Your task to perform on an android device: change the upload size in google photos Image 0: 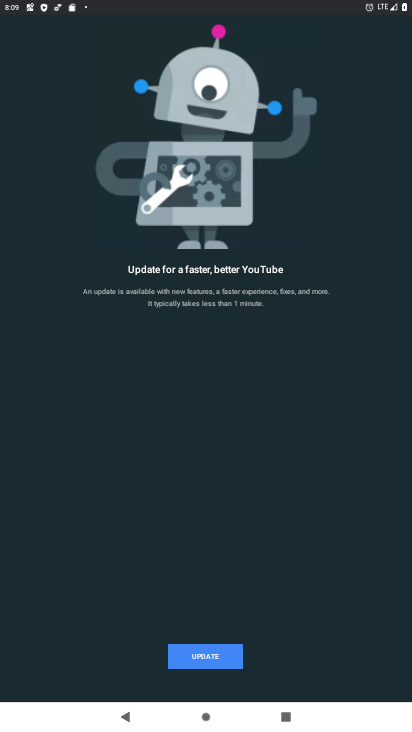
Step 0: press back button
Your task to perform on an android device: change the upload size in google photos Image 1: 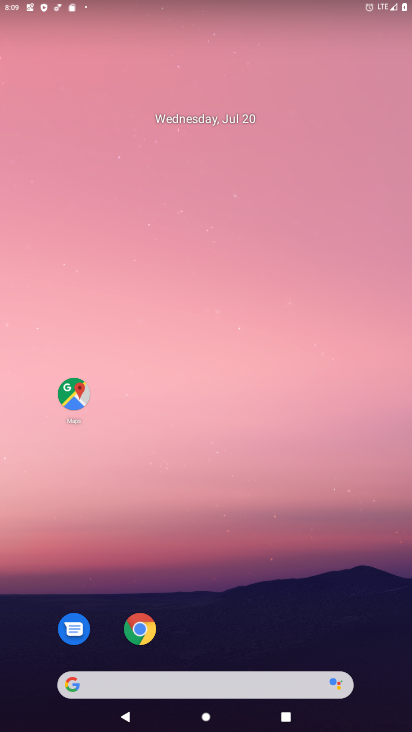
Step 1: drag from (230, 624) to (220, 285)
Your task to perform on an android device: change the upload size in google photos Image 2: 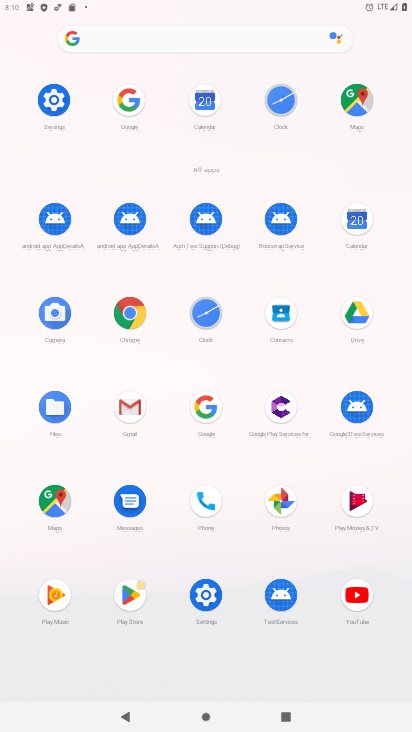
Step 2: click (280, 502)
Your task to perform on an android device: change the upload size in google photos Image 3: 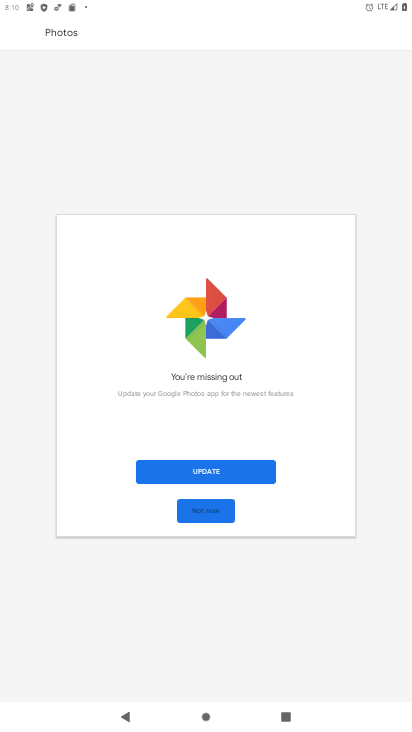
Step 3: click (204, 510)
Your task to perform on an android device: change the upload size in google photos Image 4: 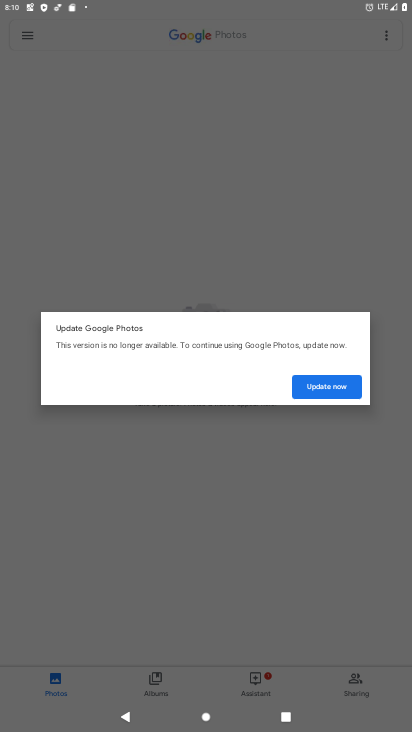
Step 4: click (327, 384)
Your task to perform on an android device: change the upload size in google photos Image 5: 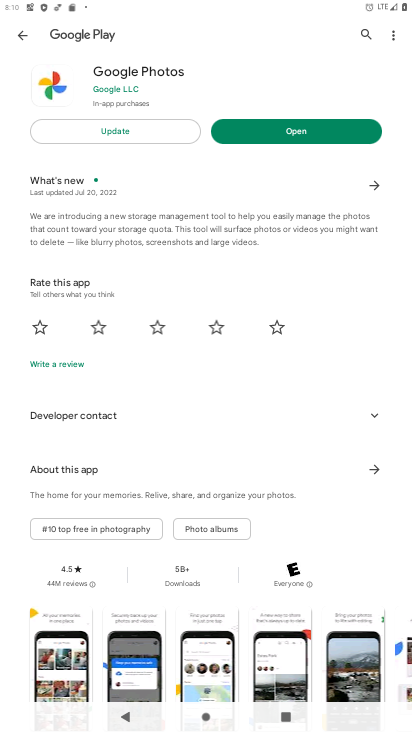
Step 5: click (111, 122)
Your task to perform on an android device: change the upload size in google photos Image 6: 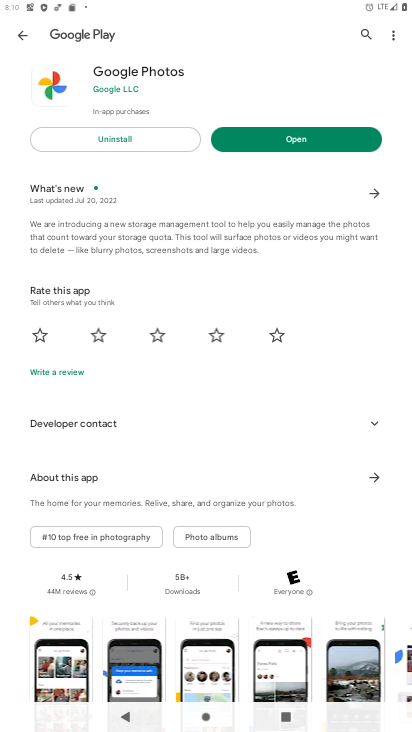
Step 6: click (298, 147)
Your task to perform on an android device: change the upload size in google photos Image 7: 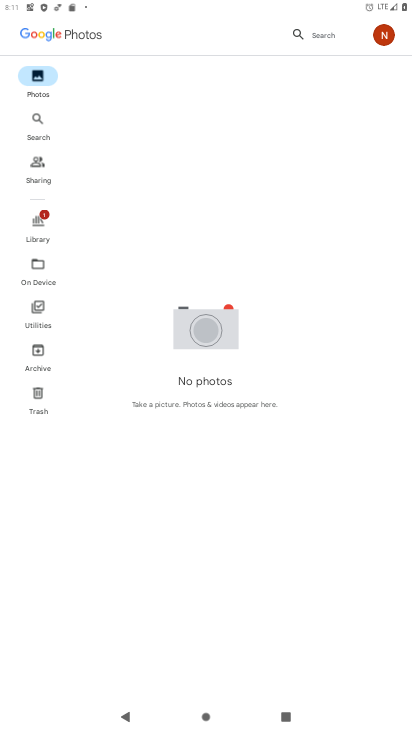
Step 7: click (387, 35)
Your task to perform on an android device: change the upload size in google photos Image 8: 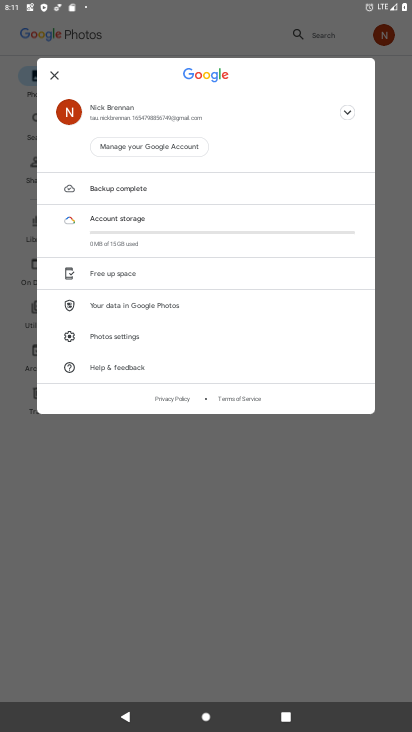
Step 8: click (110, 339)
Your task to perform on an android device: change the upload size in google photos Image 9: 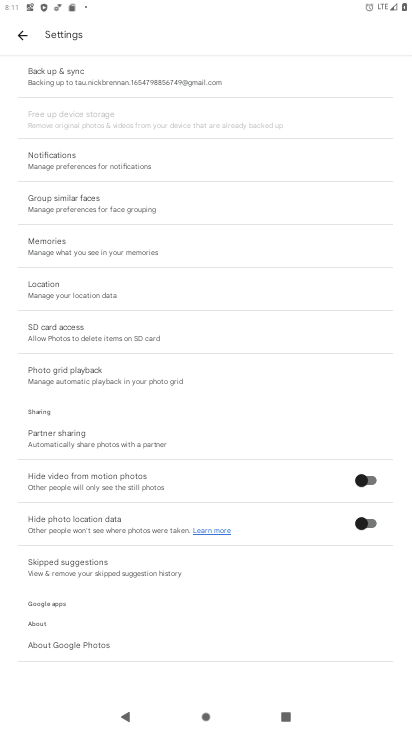
Step 9: click (168, 81)
Your task to perform on an android device: change the upload size in google photos Image 10: 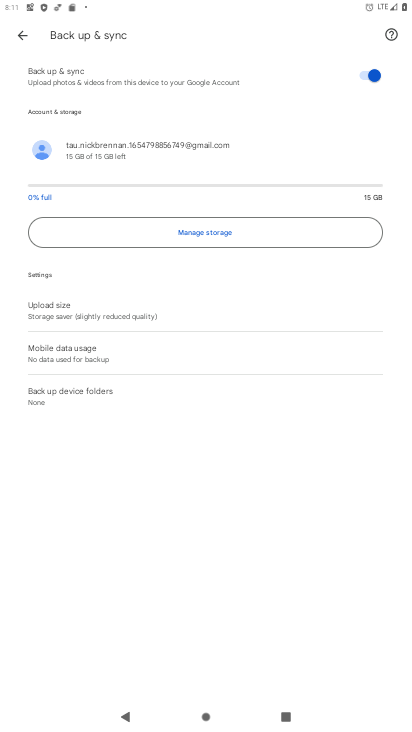
Step 10: click (92, 316)
Your task to perform on an android device: change the upload size in google photos Image 11: 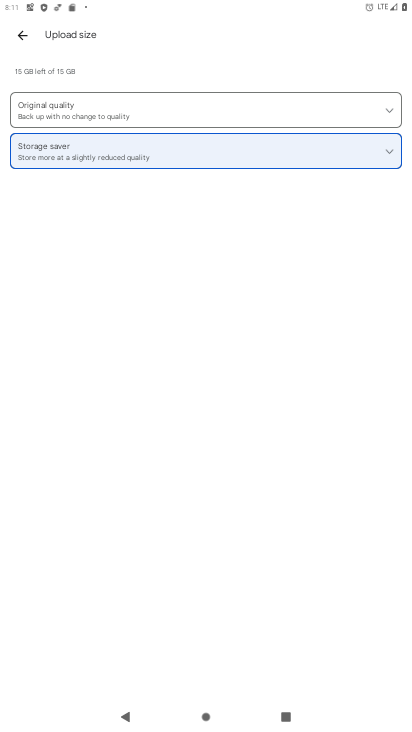
Step 11: click (190, 109)
Your task to perform on an android device: change the upload size in google photos Image 12: 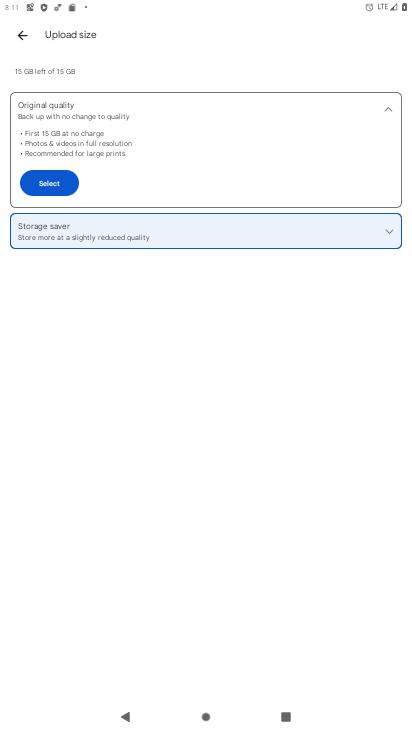
Step 12: click (58, 178)
Your task to perform on an android device: change the upload size in google photos Image 13: 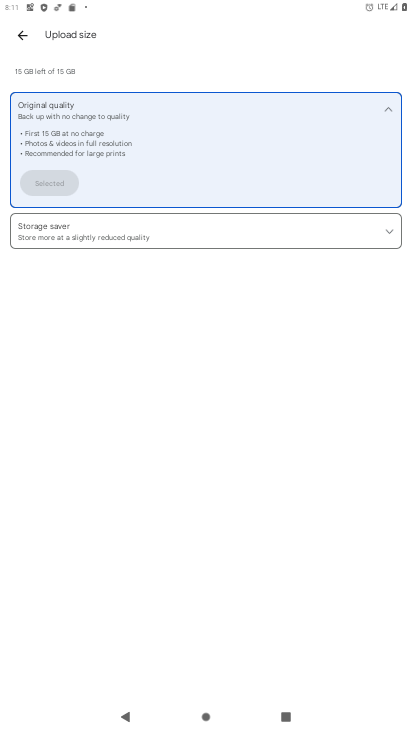
Step 13: task complete